Your task to perform on an android device: Search for flights from NYC to Chicago Image 0: 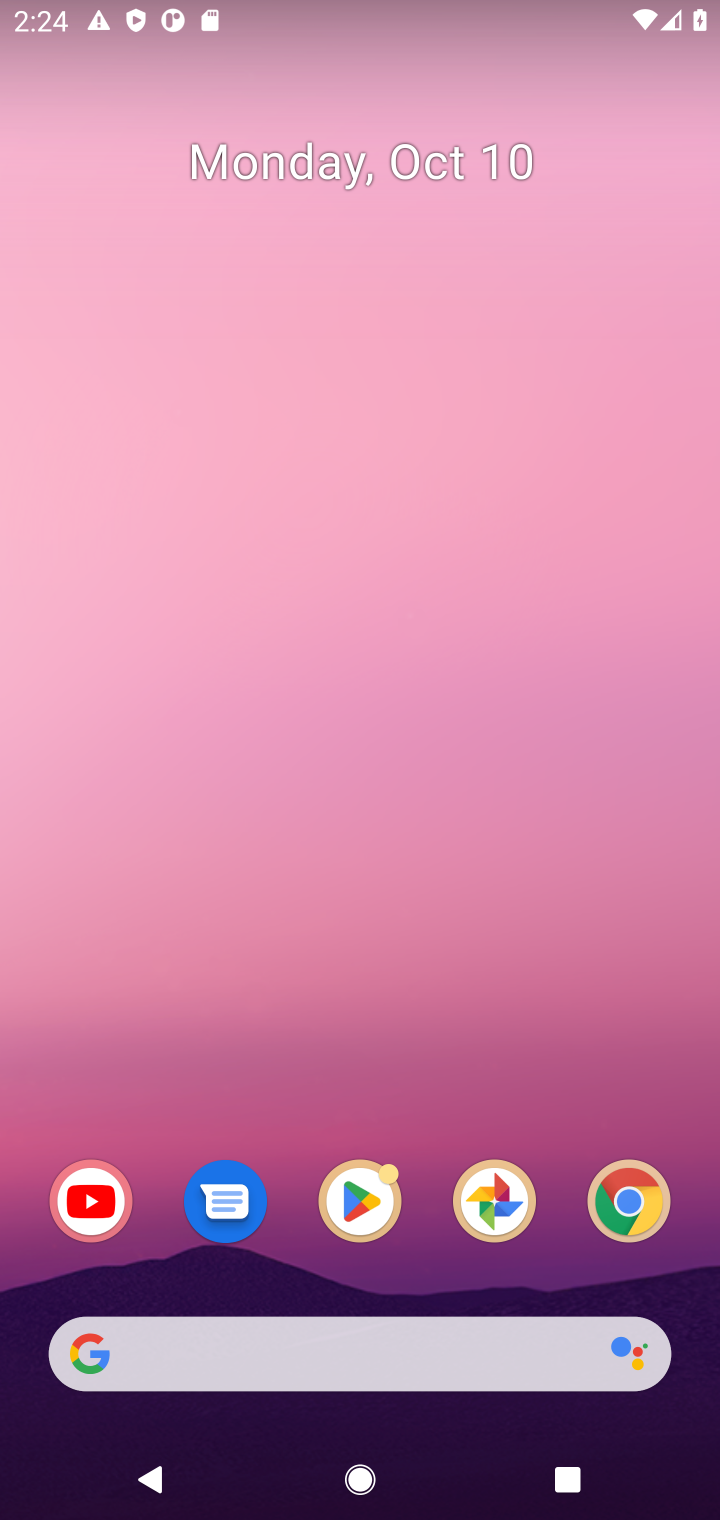
Step 0: click (313, 1374)
Your task to perform on an android device: Search for flights from NYC to Chicago Image 1: 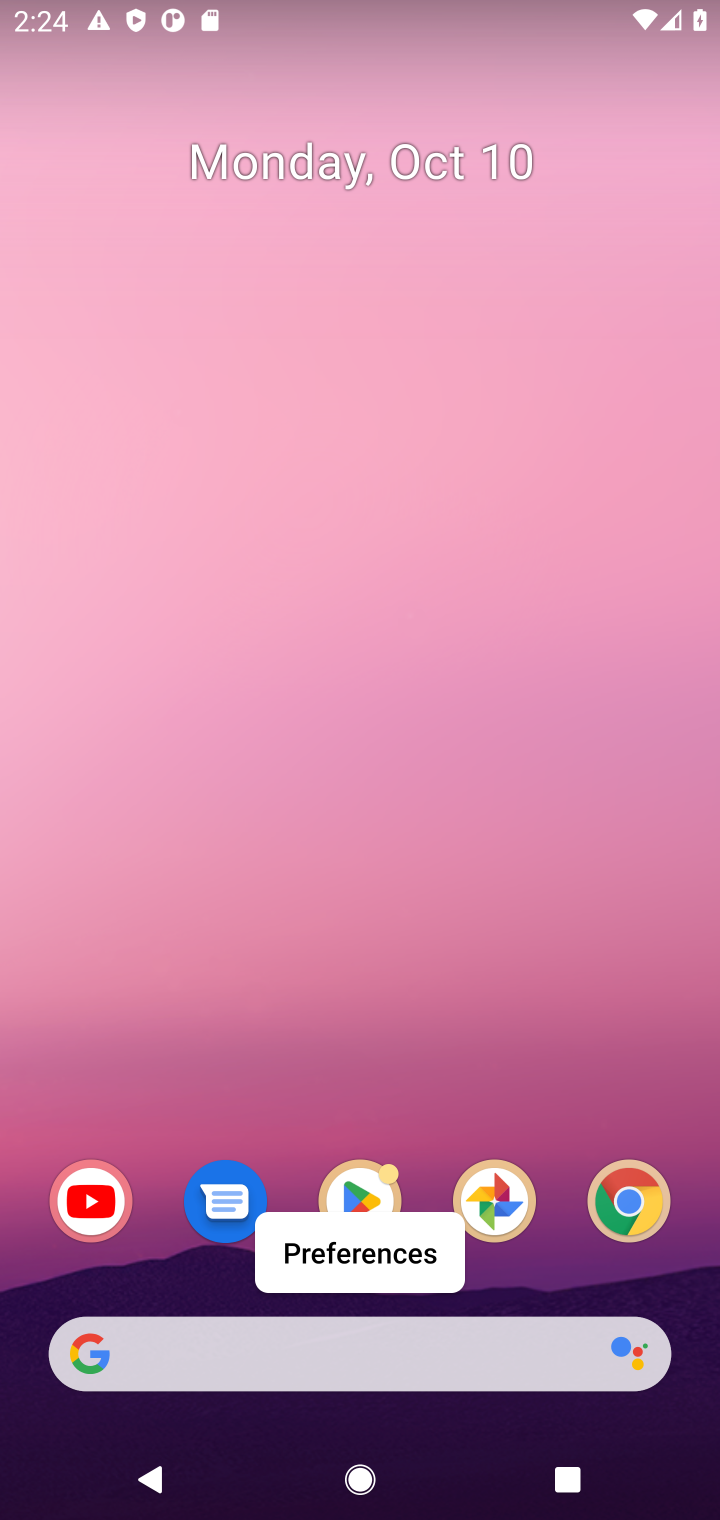
Step 1: click (313, 1374)
Your task to perform on an android device: Search for flights from NYC to Chicago Image 2: 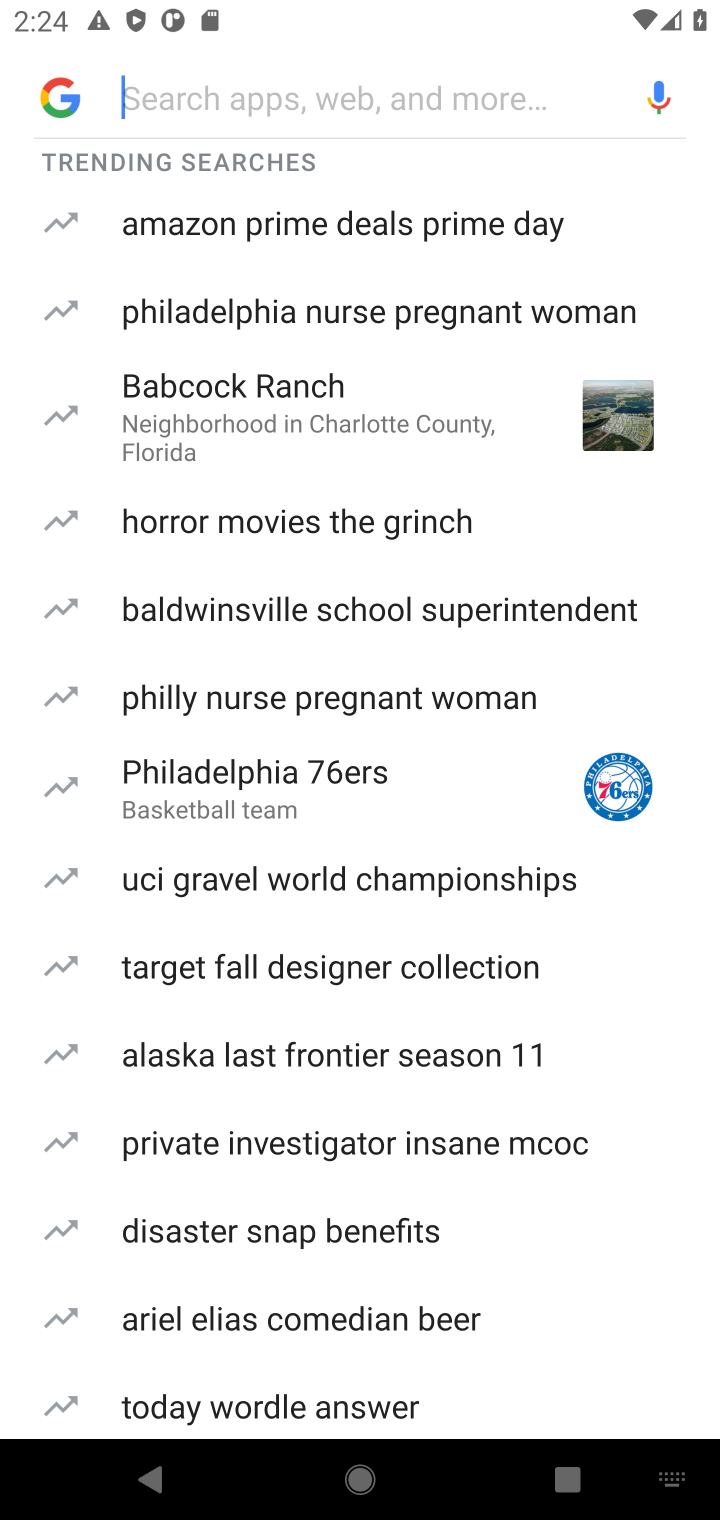
Step 2: type " flights from NYC to Chicago"
Your task to perform on an android device: Search for flights from NYC to Chicago Image 3: 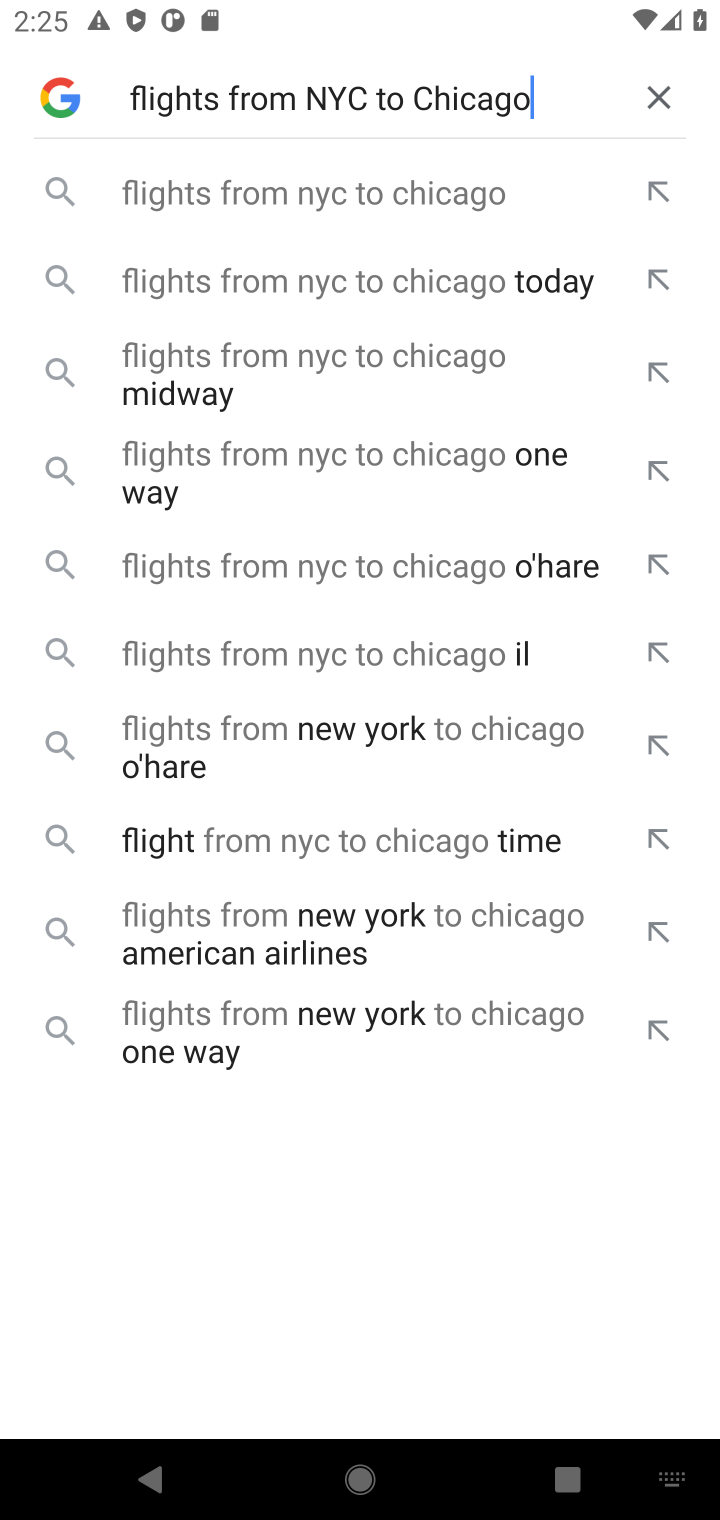
Step 3: click (376, 208)
Your task to perform on an android device: Search for flights from NYC to Chicago Image 4: 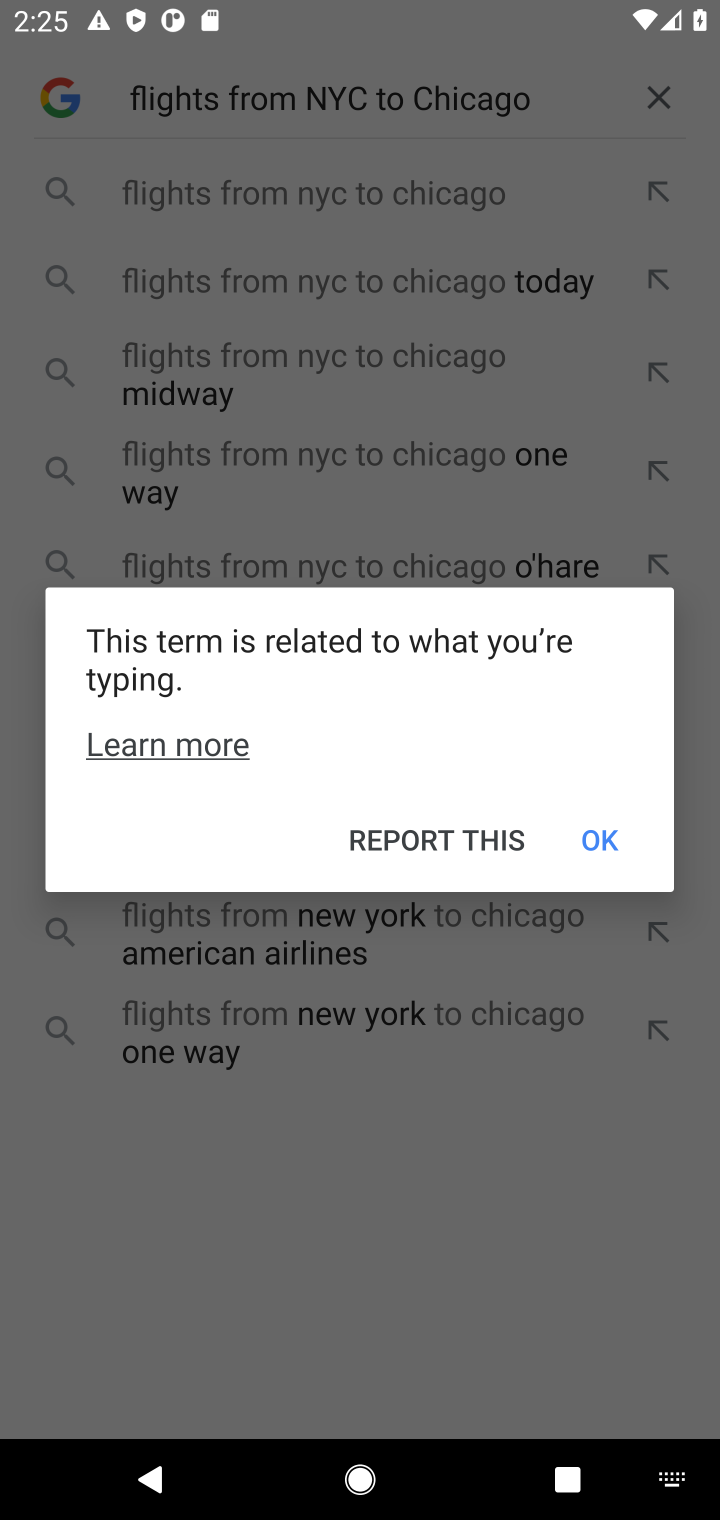
Step 4: click (376, 206)
Your task to perform on an android device: Search for flights from NYC to Chicago Image 5: 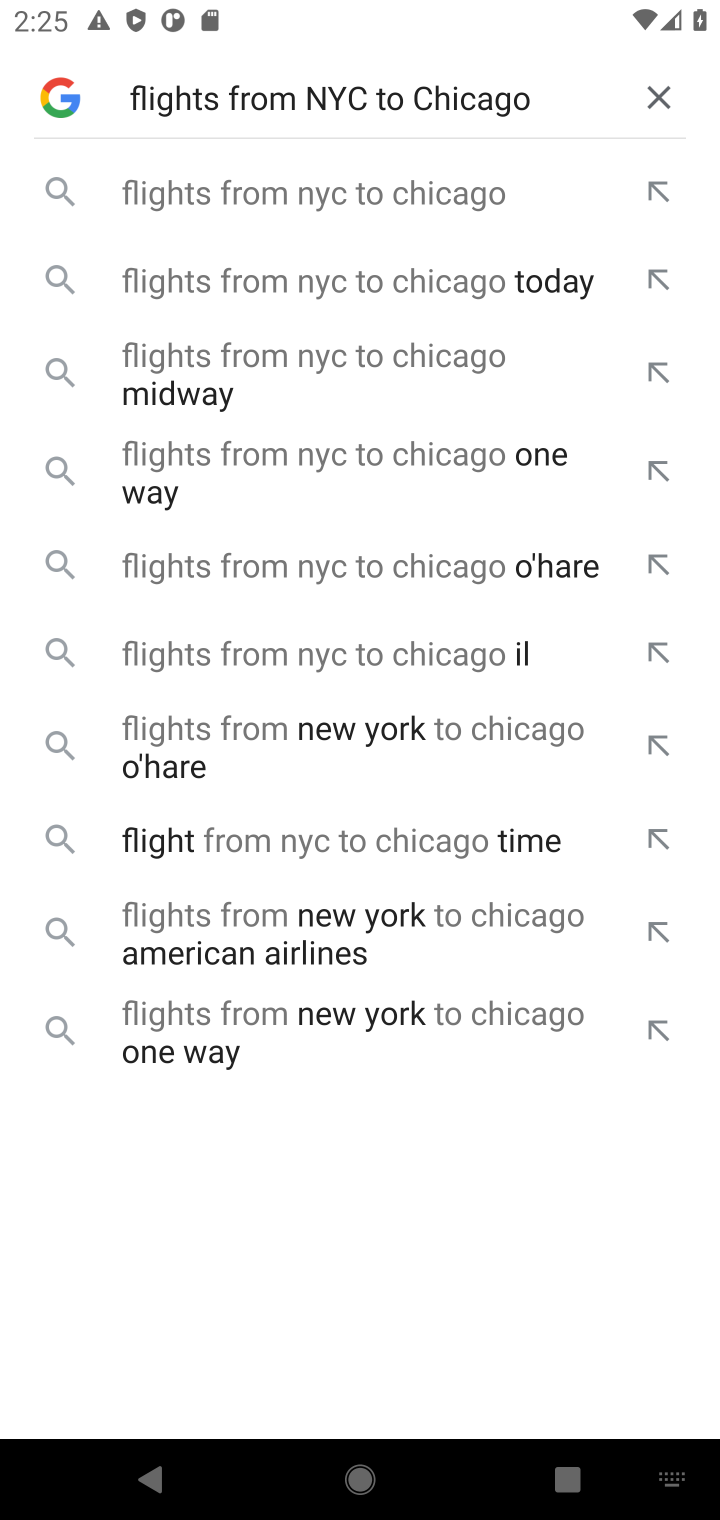
Step 5: click (593, 829)
Your task to perform on an android device: Search for flights from NYC to Chicago Image 6: 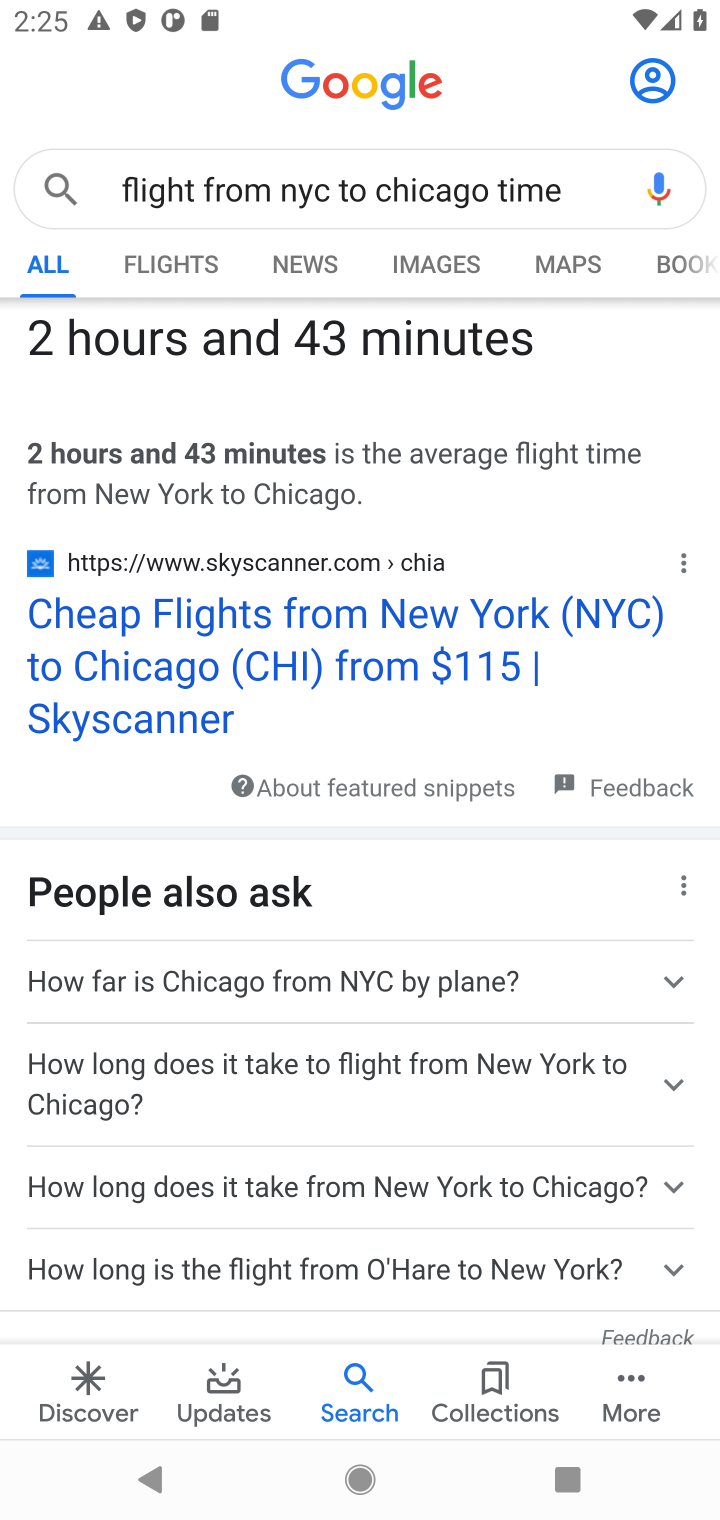
Step 6: click (582, 172)
Your task to perform on an android device: Search for flights from NYC to Chicago Image 7: 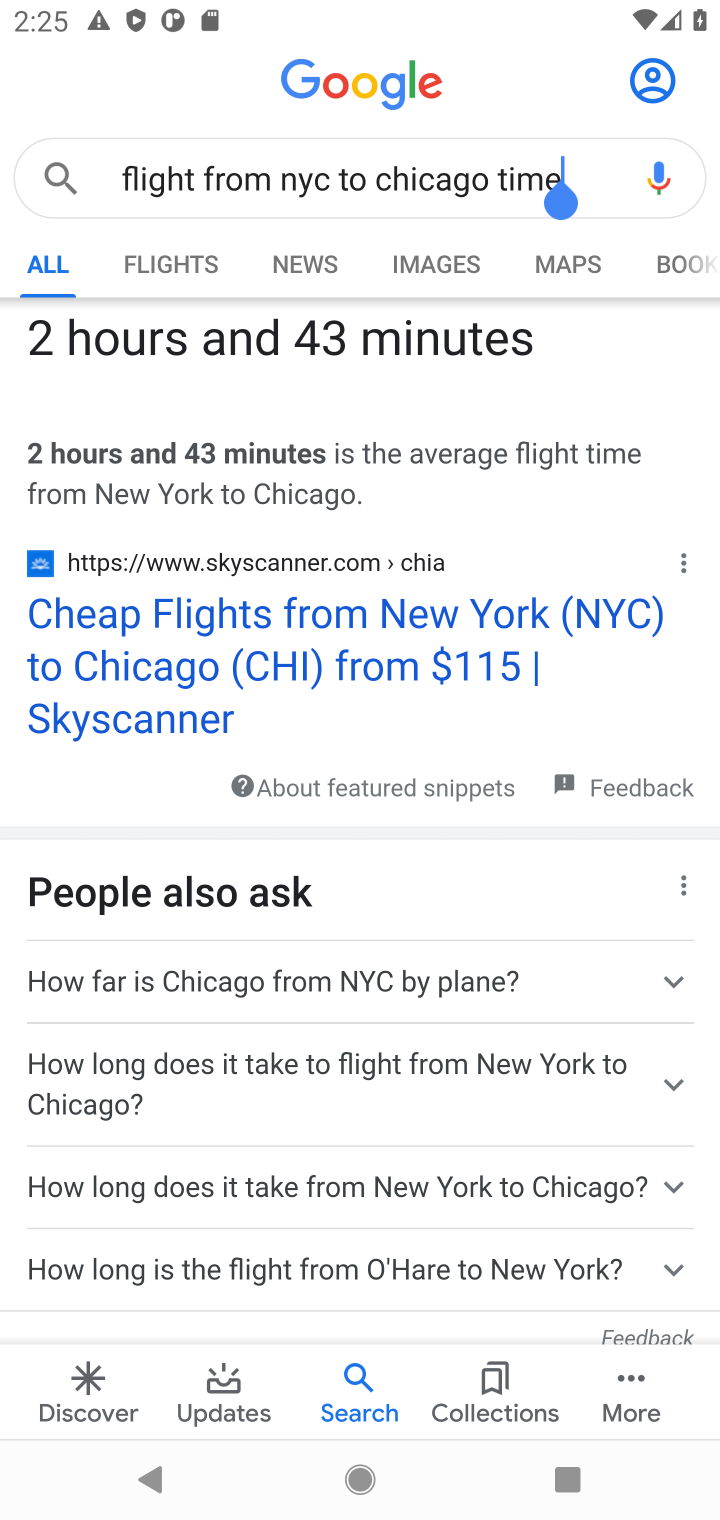
Step 7: click (582, 185)
Your task to perform on an android device: Search for flights from NYC to Chicago Image 8: 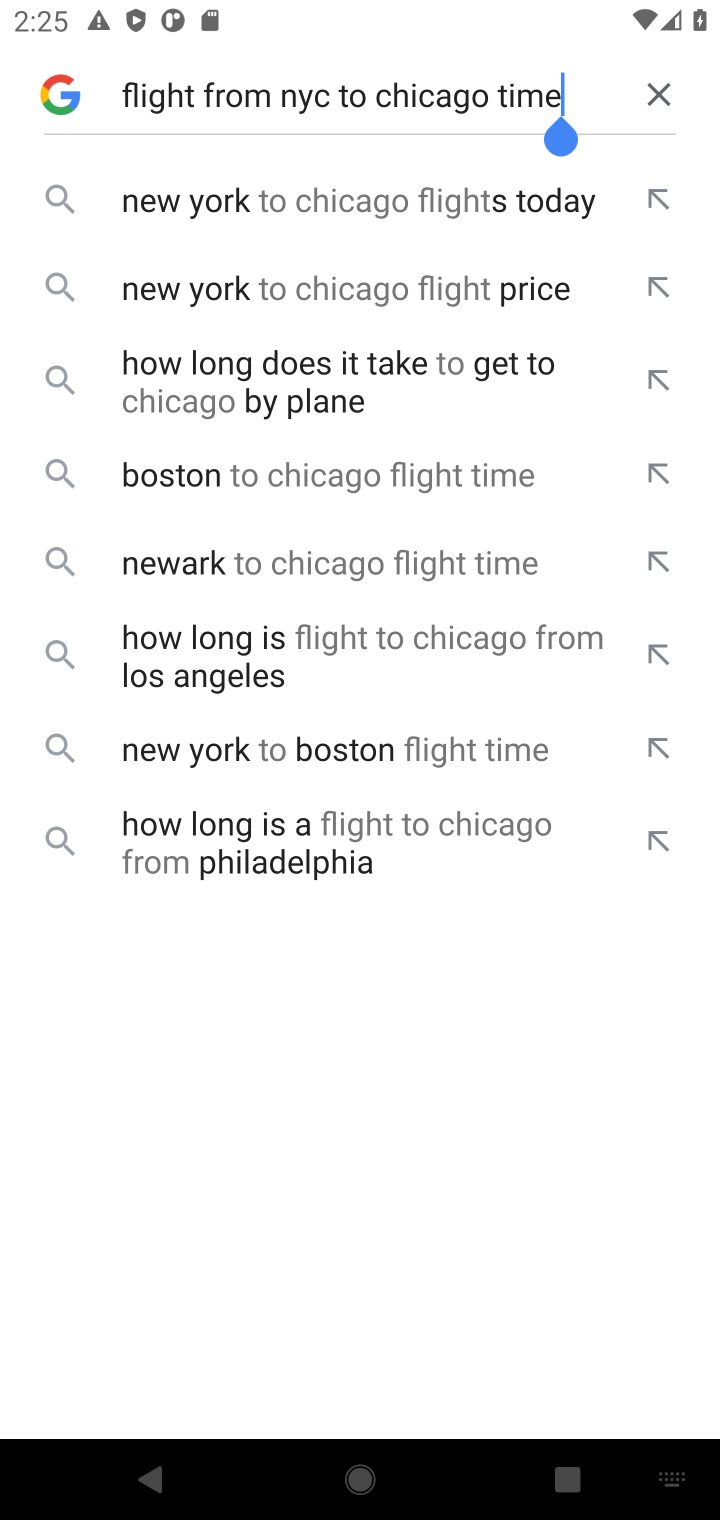
Step 8: click (665, 86)
Your task to perform on an android device: Search for flights from NYC to Chicago Image 9: 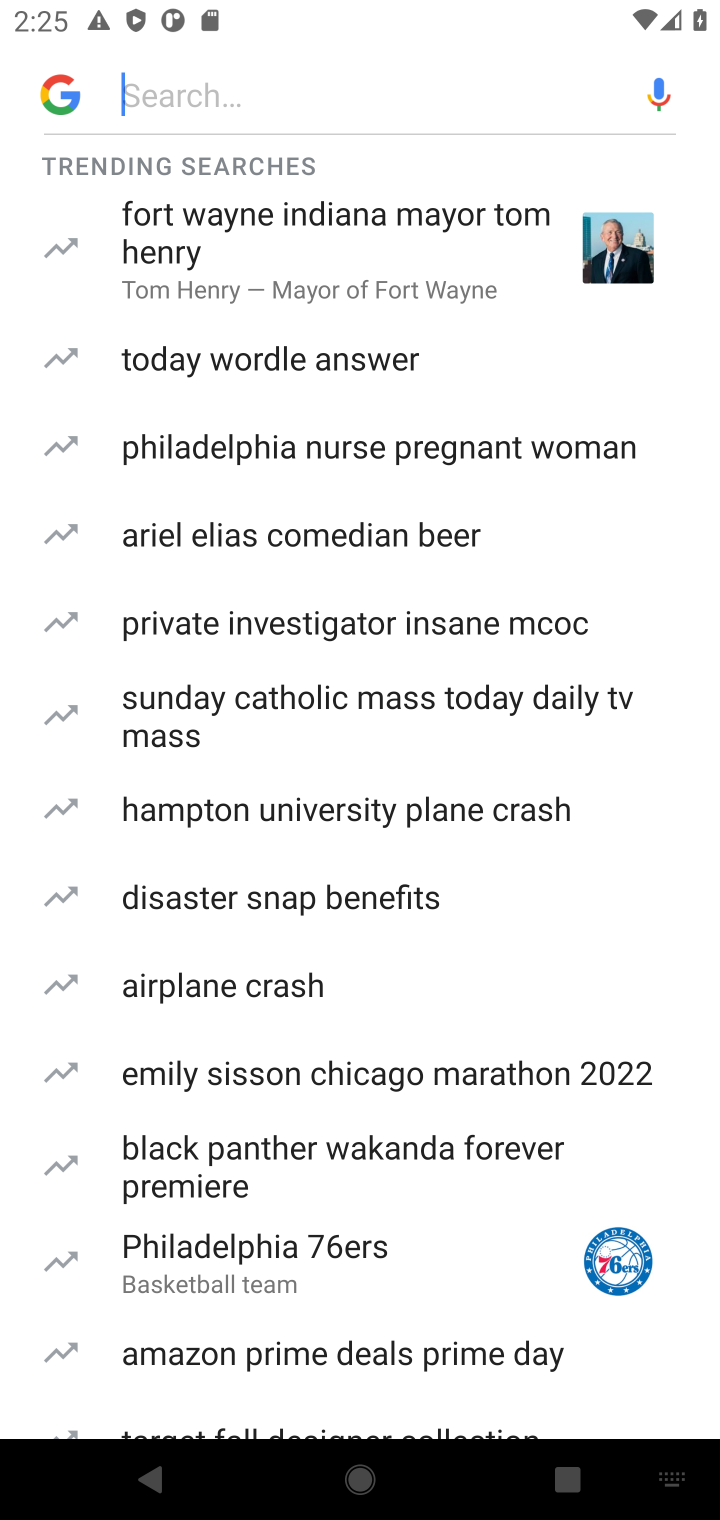
Step 9: type "flights from NYC to Chicago"
Your task to perform on an android device: Search for flights from NYC to Chicago Image 10: 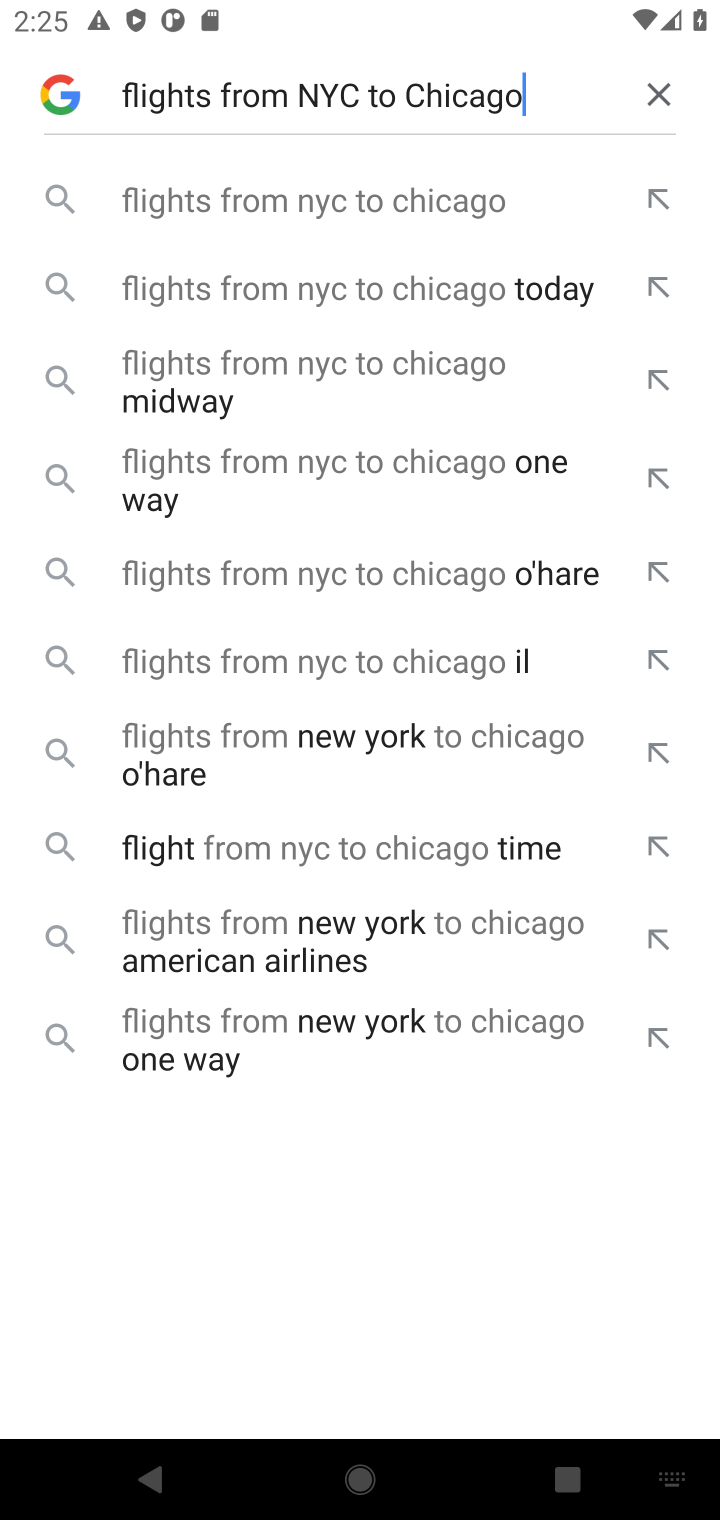
Step 10: click (422, 213)
Your task to perform on an android device: Search for flights from NYC to Chicago Image 11: 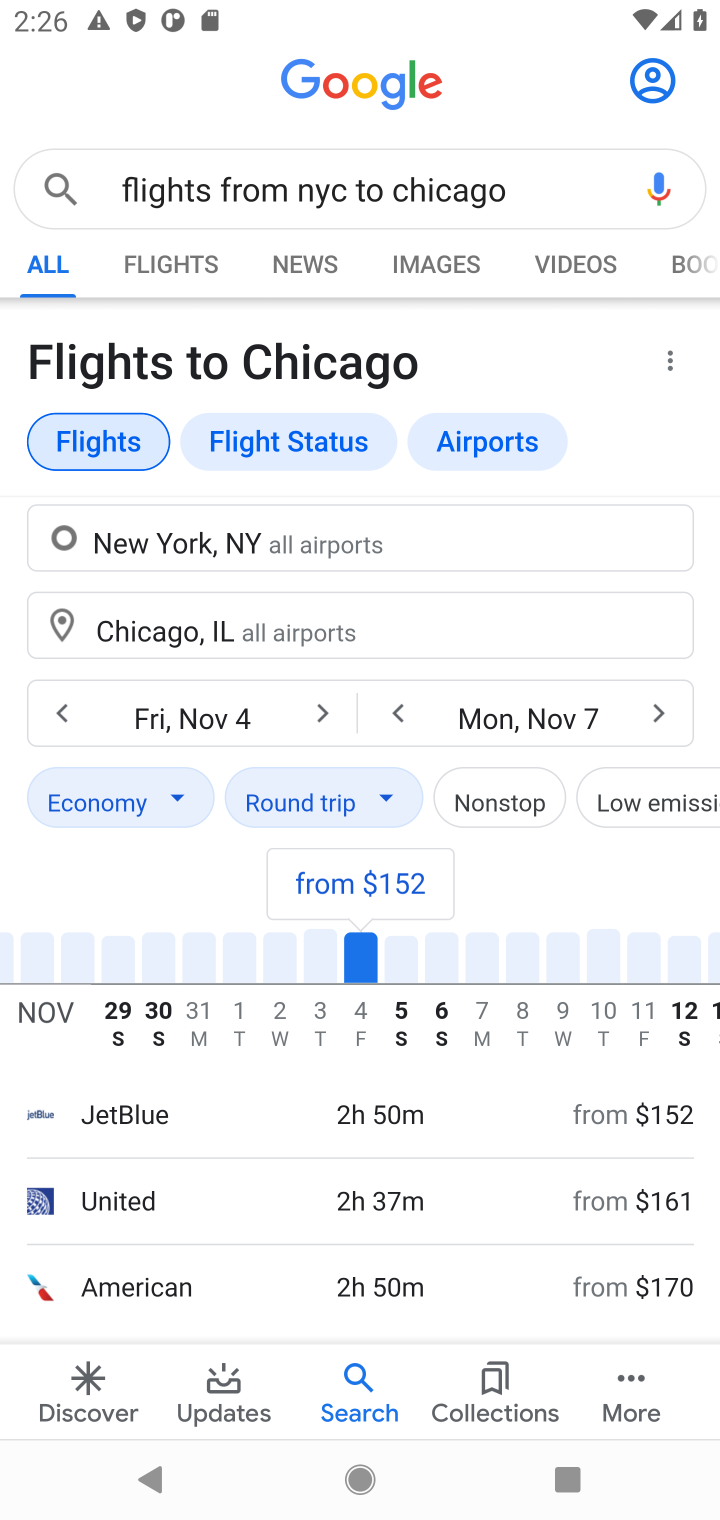
Step 11: task complete